Your task to perform on an android device: toggle sleep mode Image 0: 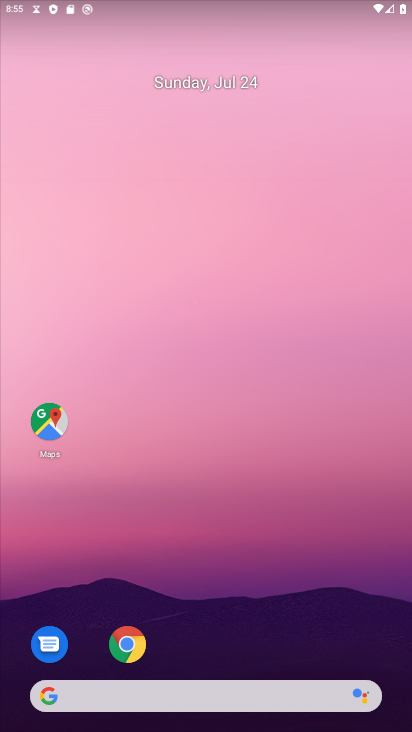
Step 0: drag from (299, 616) to (283, 86)
Your task to perform on an android device: toggle sleep mode Image 1: 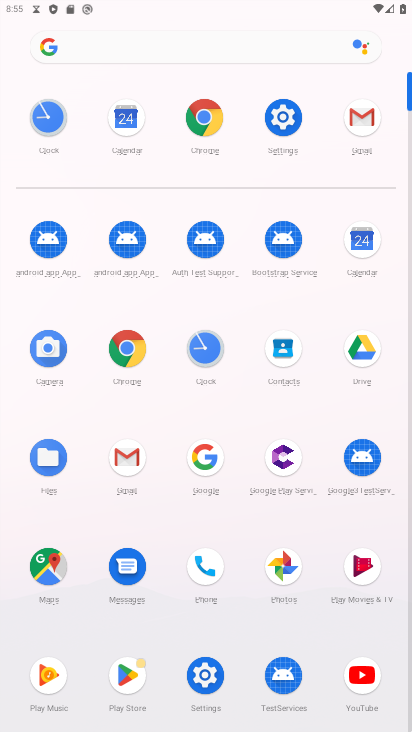
Step 1: click (209, 670)
Your task to perform on an android device: toggle sleep mode Image 2: 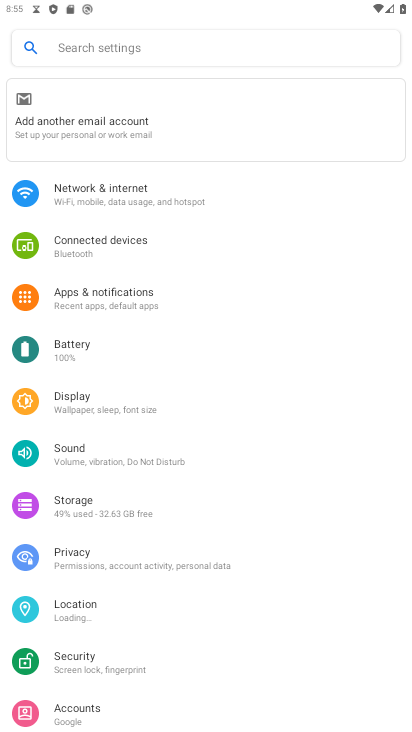
Step 2: click (104, 396)
Your task to perform on an android device: toggle sleep mode Image 3: 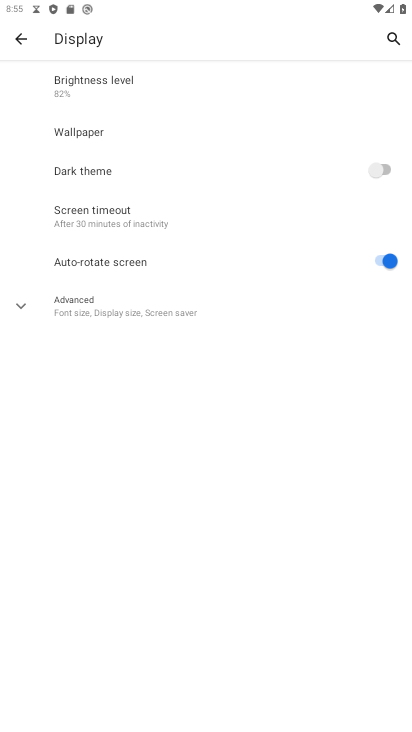
Step 3: click (115, 206)
Your task to perform on an android device: toggle sleep mode Image 4: 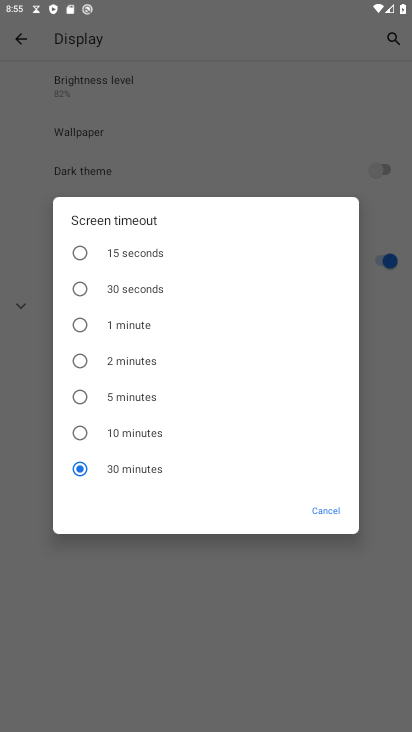
Step 4: click (128, 354)
Your task to perform on an android device: toggle sleep mode Image 5: 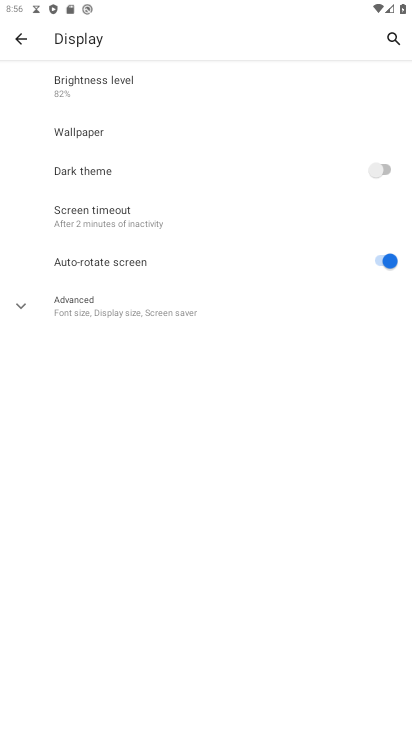
Step 5: task complete